Your task to perform on an android device: When is my next meeting? Image 0: 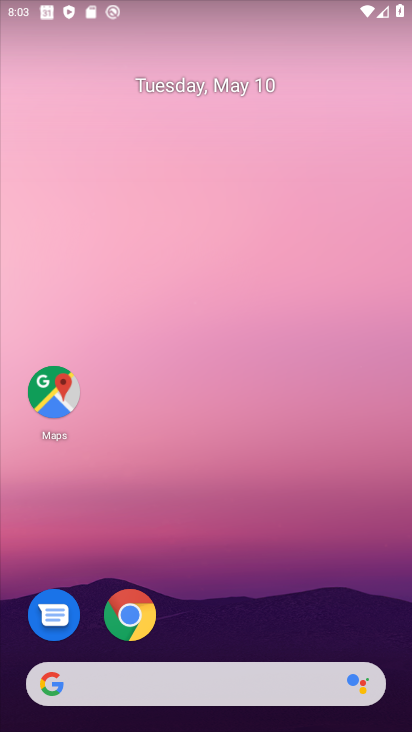
Step 0: drag from (191, 579) to (216, 197)
Your task to perform on an android device: When is my next meeting? Image 1: 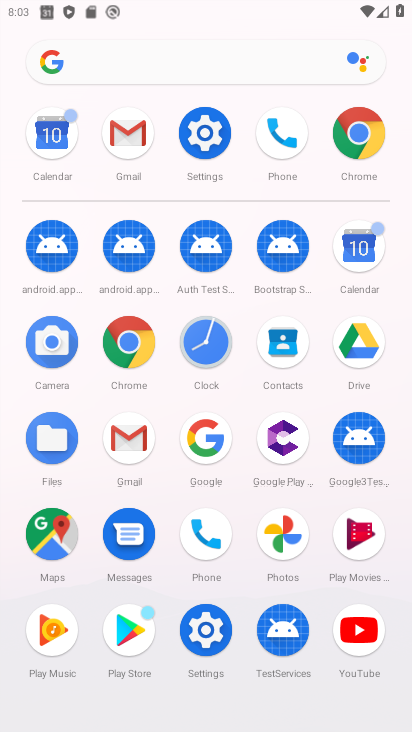
Step 1: click (343, 227)
Your task to perform on an android device: When is my next meeting? Image 2: 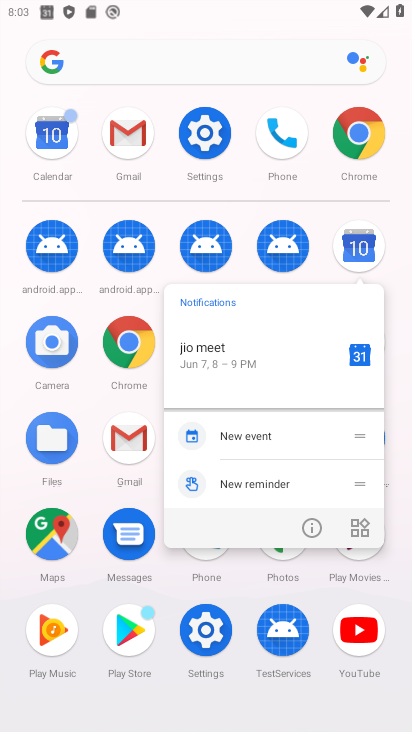
Step 2: click (313, 519)
Your task to perform on an android device: When is my next meeting? Image 3: 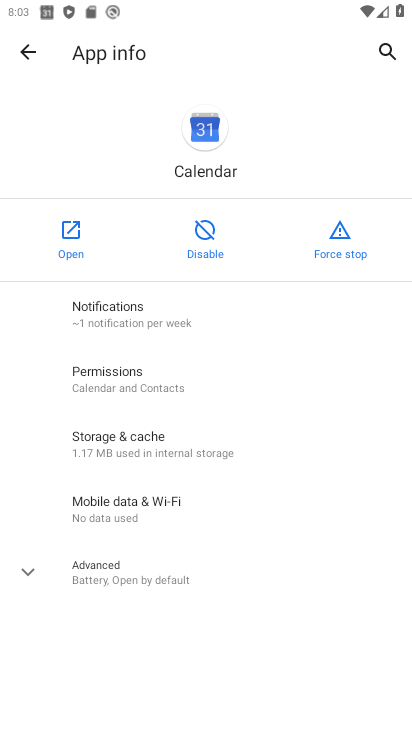
Step 3: click (76, 240)
Your task to perform on an android device: When is my next meeting? Image 4: 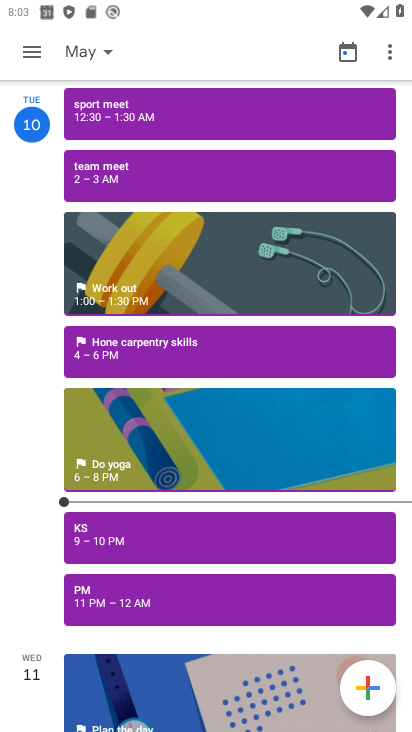
Step 4: task complete